Your task to perform on an android device: allow cookies in the chrome app Image 0: 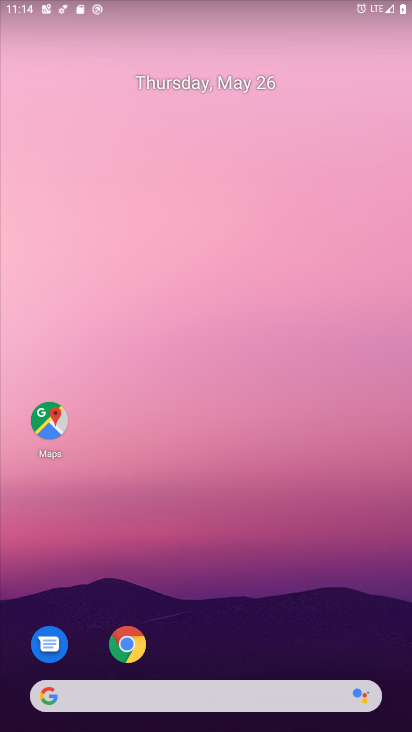
Step 0: drag from (331, 640) to (357, 198)
Your task to perform on an android device: allow cookies in the chrome app Image 1: 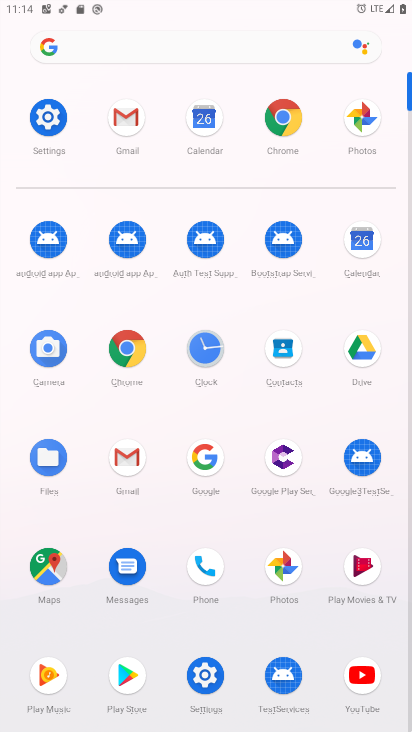
Step 1: click (137, 358)
Your task to perform on an android device: allow cookies in the chrome app Image 2: 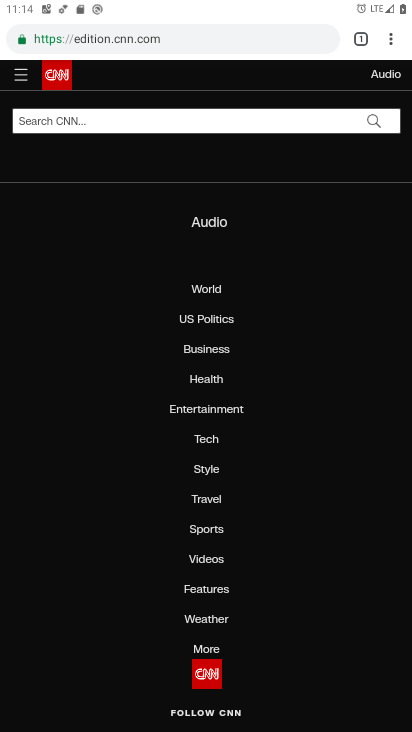
Step 2: click (390, 42)
Your task to perform on an android device: allow cookies in the chrome app Image 3: 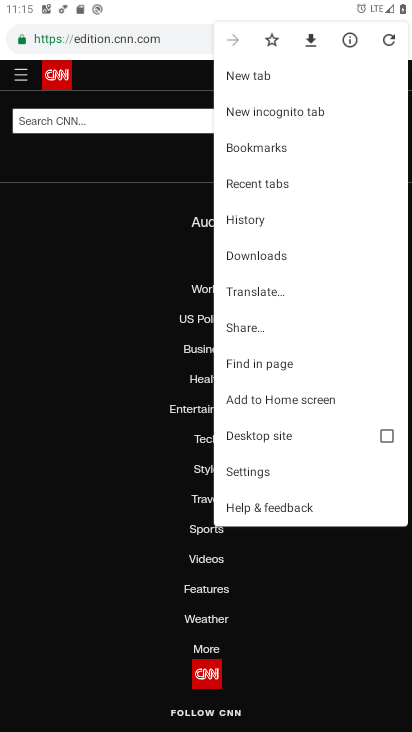
Step 3: click (254, 469)
Your task to perform on an android device: allow cookies in the chrome app Image 4: 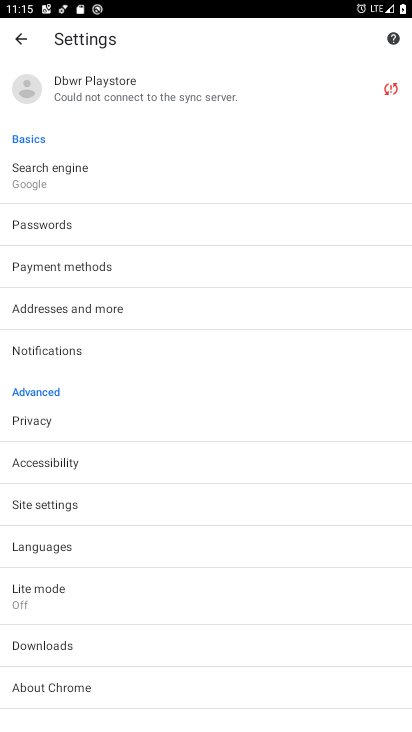
Step 4: click (204, 503)
Your task to perform on an android device: allow cookies in the chrome app Image 5: 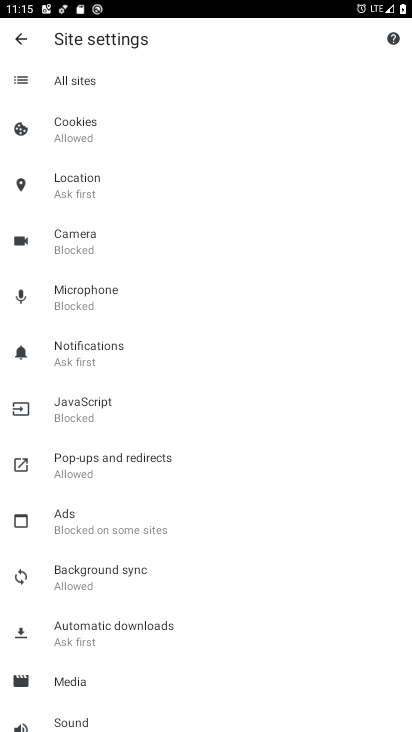
Step 5: click (89, 128)
Your task to perform on an android device: allow cookies in the chrome app Image 6: 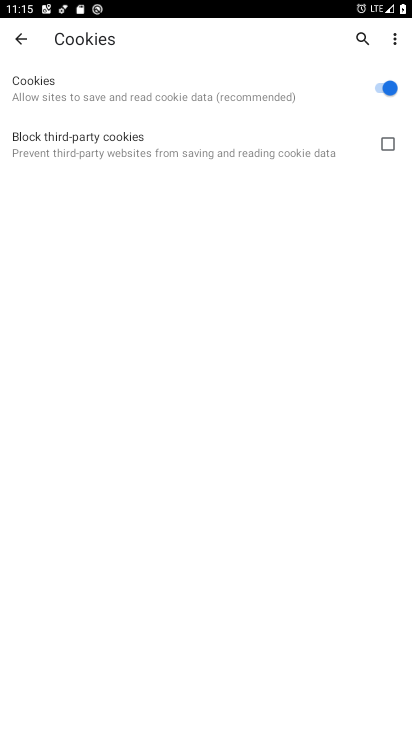
Step 6: task complete